Your task to perform on an android device: stop showing notifications on the lock screen Image 0: 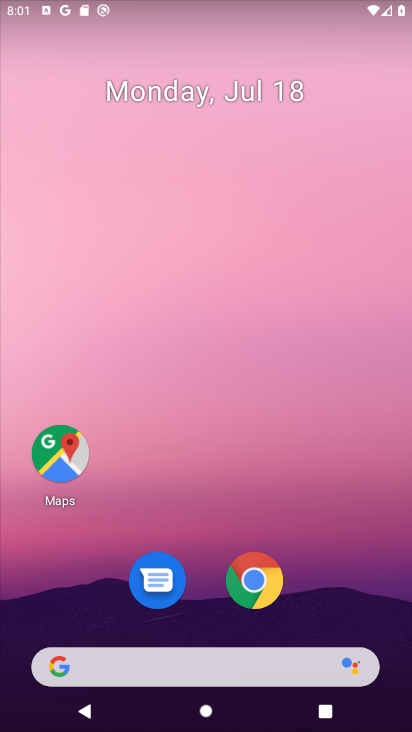
Step 0: drag from (331, 196) to (333, 147)
Your task to perform on an android device: stop showing notifications on the lock screen Image 1: 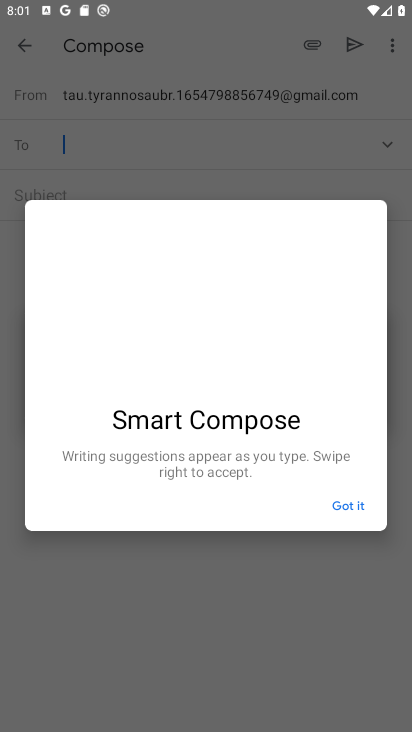
Step 1: press home button
Your task to perform on an android device: stop showing notifications on the lock screen Image 2: 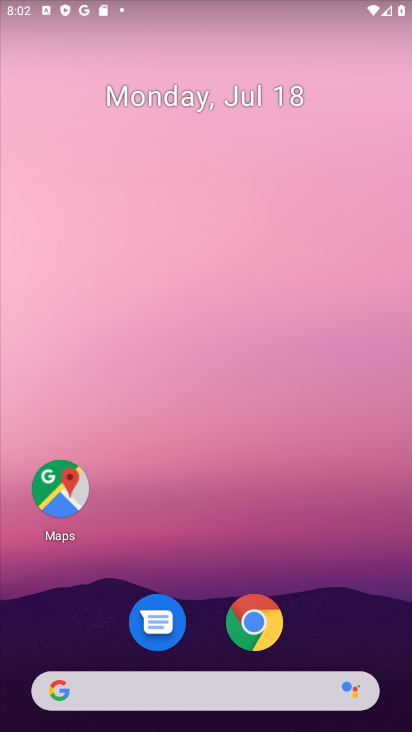
Step 2: drag from (363, 671) to (373, 42)
Your task to perform on an android device: stop showing notifications on the lock screen Image 3: 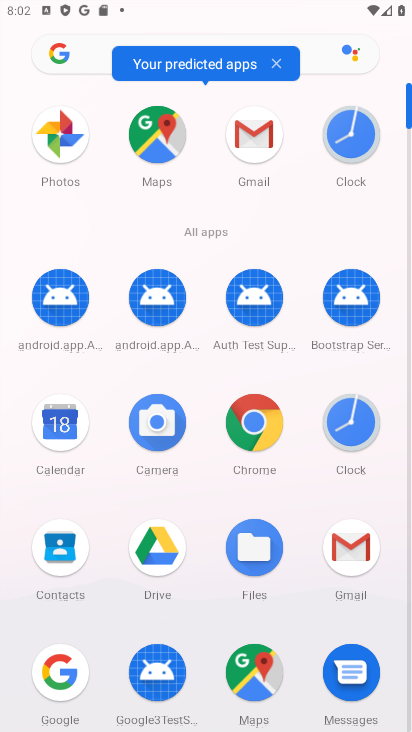
Step 3: drag from (256, 573) to (299, 159)
Your task to perform on an android device: stop showing notifications on the lock screen Image 4: 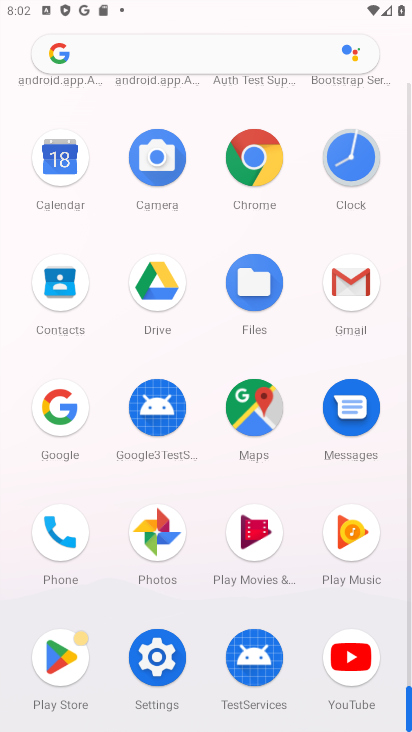
Step 4: click (156, 663)
Your task to perform on an android device: stop showing notifications on the lock screen Image 5: 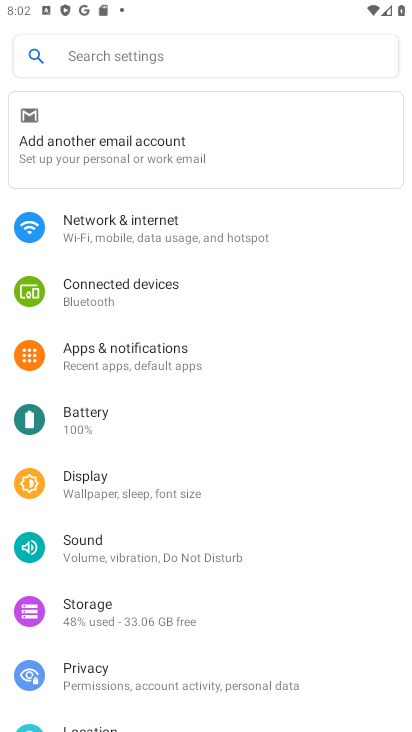
Step 5: click (181, 367)
Your task to perform on an android device: stop showing notifications on the lock screen Image 6: 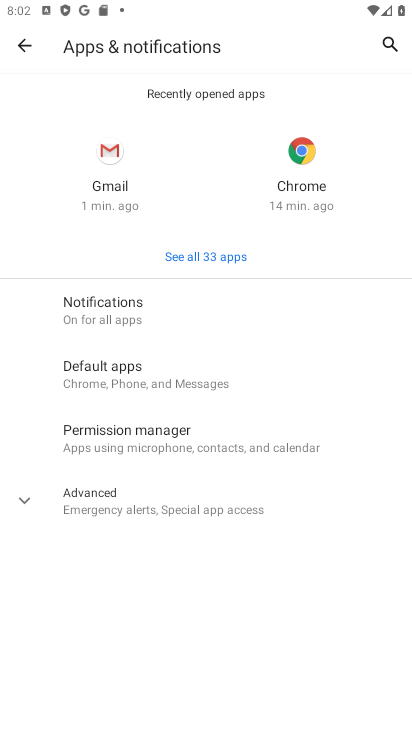
Step 6: click (143, 318)
Your task to perform on an android device: stop showing notifications on the lock screen Image 7: 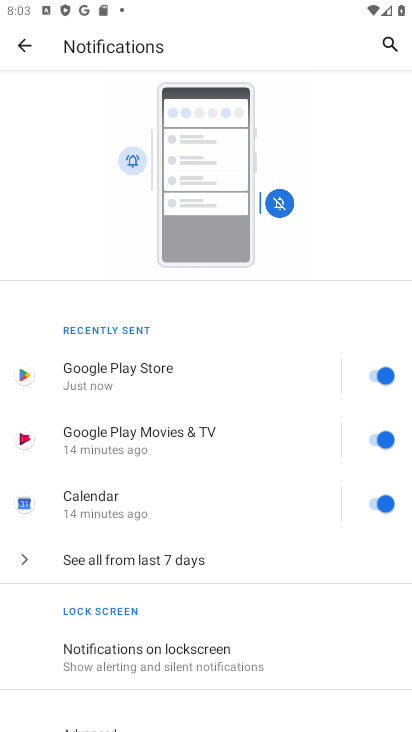
Step 7: click (186, 651)
Your task to perform on an android device: stop showing notifications on the lock screen Image 8: 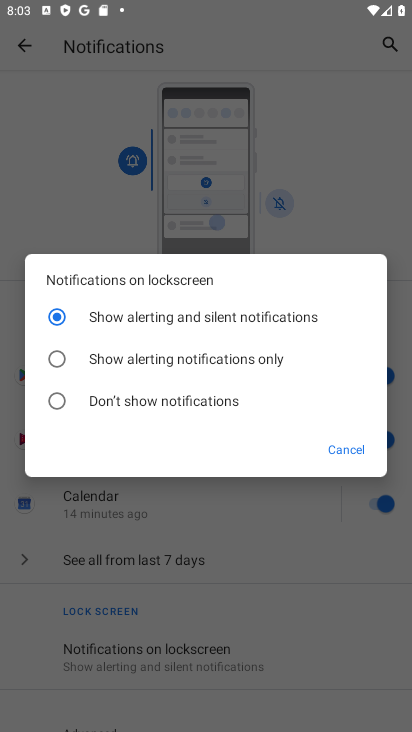
Step 8: click (53, 396)
Your task to perform on an android device: stop showing notifications on the lock screen Image 9: 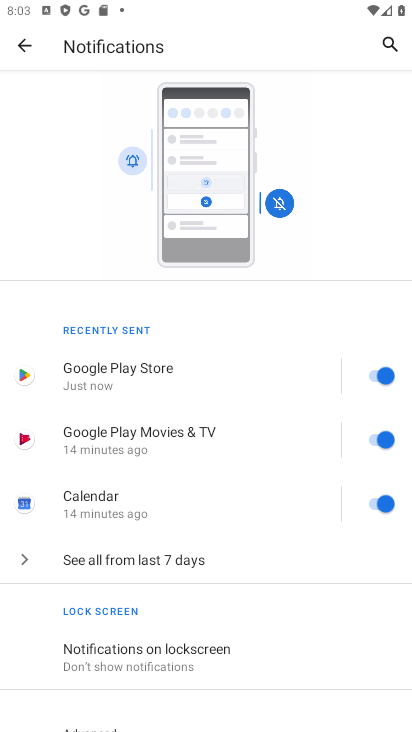
Step 9: task complete